Your task to perform on an android device: Do I have any events this weekend? Image 0: 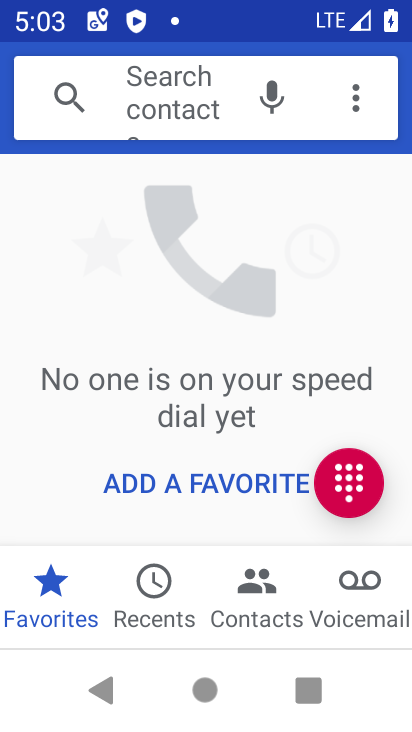
Step 0: press home button
Your task to perform on an android device: Do I have any events this weekend? Image 1: 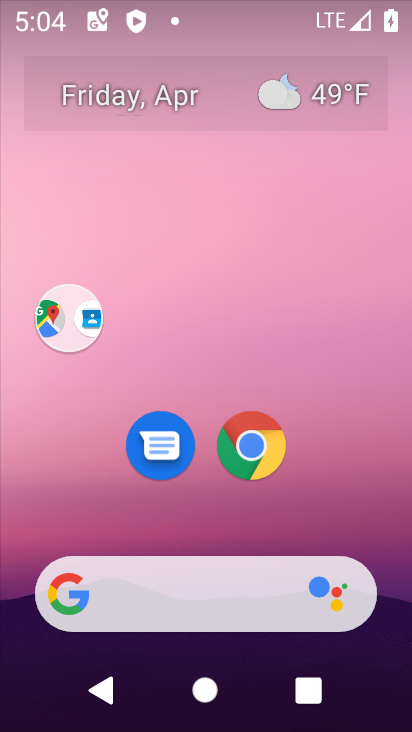
Step 1: drag from (309, 501) to (336, 0)
Your task to perform on an android device: Do I have any events this weekend? Image 2: 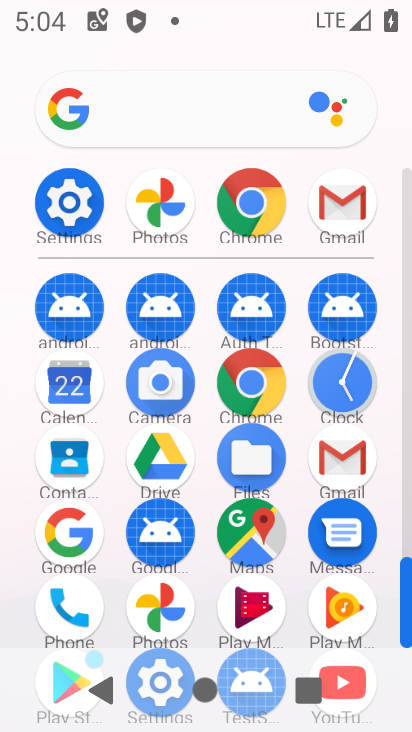
Step 2: click (63, 372)
Your task to perform on an android device: Do I have any events this weekend? Image 3: 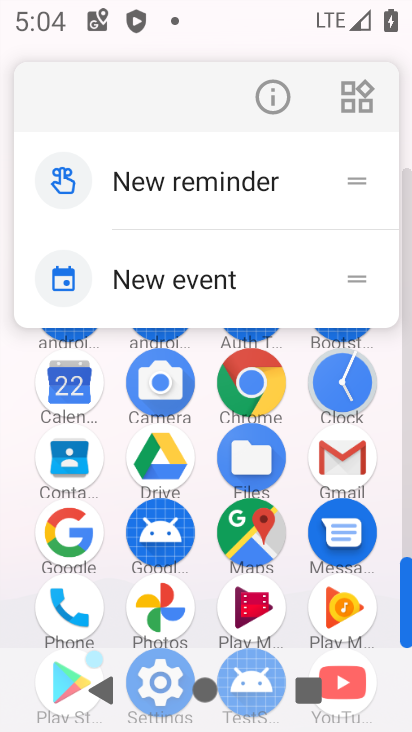
Step 3: click (59, 376)
Your task to perform on an android device: Do I have any events this weekend? Image 4: 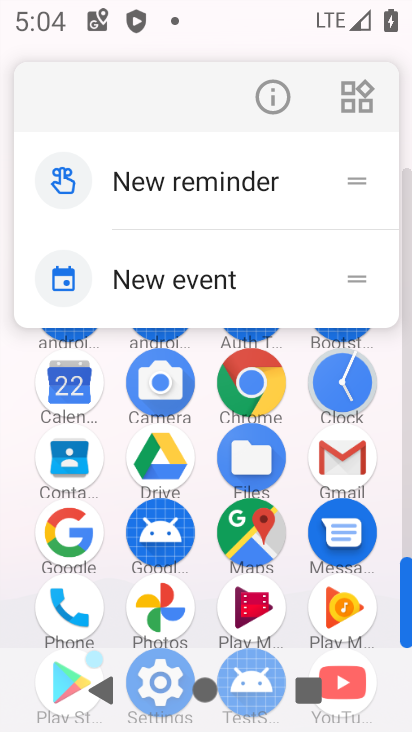
Step 4: click (61, 392)
Your task to perform on an android device: Do I have any events this weekend? Image 5: 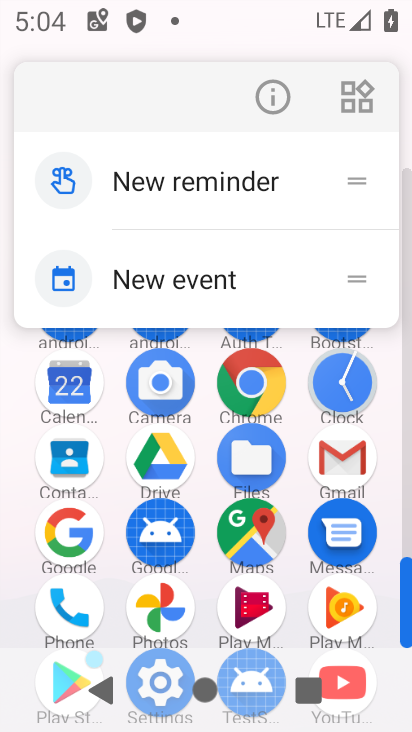
Step 5: click (71, 391)
Your task to perform on an android device: Do I have any events this weekend? Image 6: 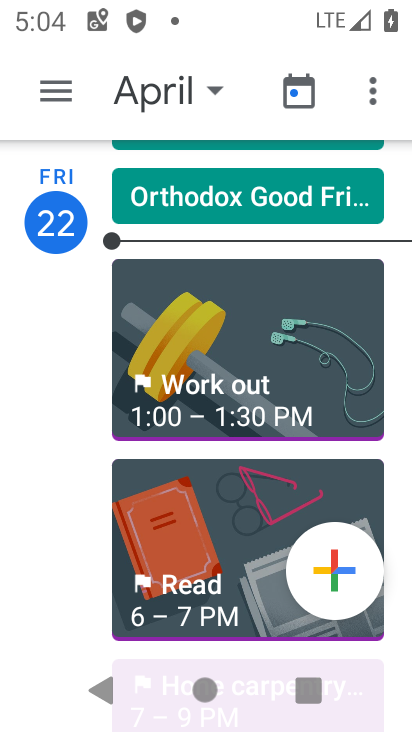
Step 6: click (142, 95)
Your task to perform on an android device: Do I have any events this weekend? Image 7: 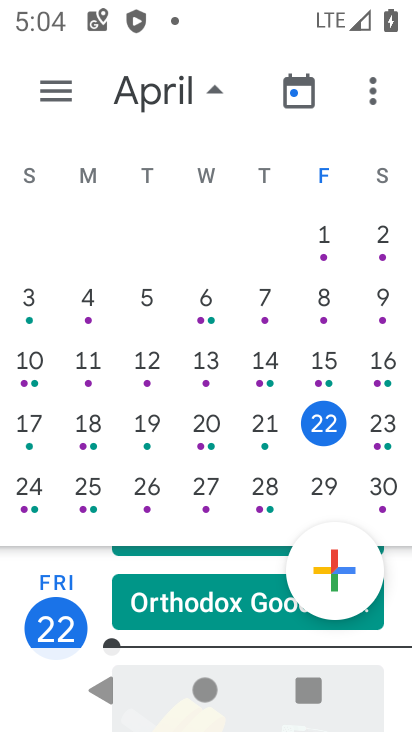
Step 7: task complete